Your task to perform on an android device: Play the last video I watched on Youtube Image 0: 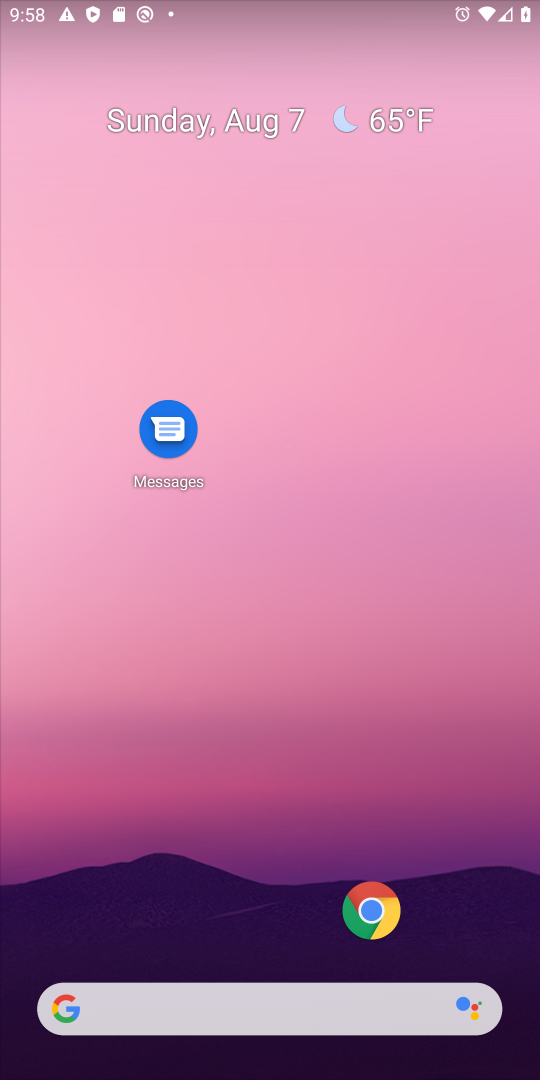
Step 0: drag from (219, 911) to (256, 499)
Your task to perform on an android device: Play the last video I watched on Youtube Image 1: 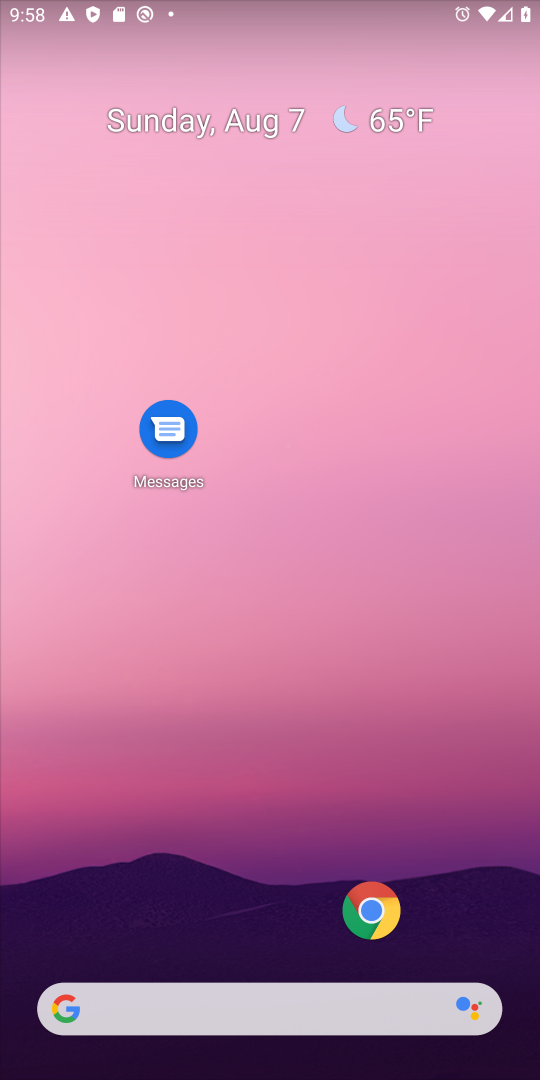
Step 1: drag from (296, 928) to (328, 472)
Your task to perform on an android device: Play the last video I watched on Youtube Image 2: 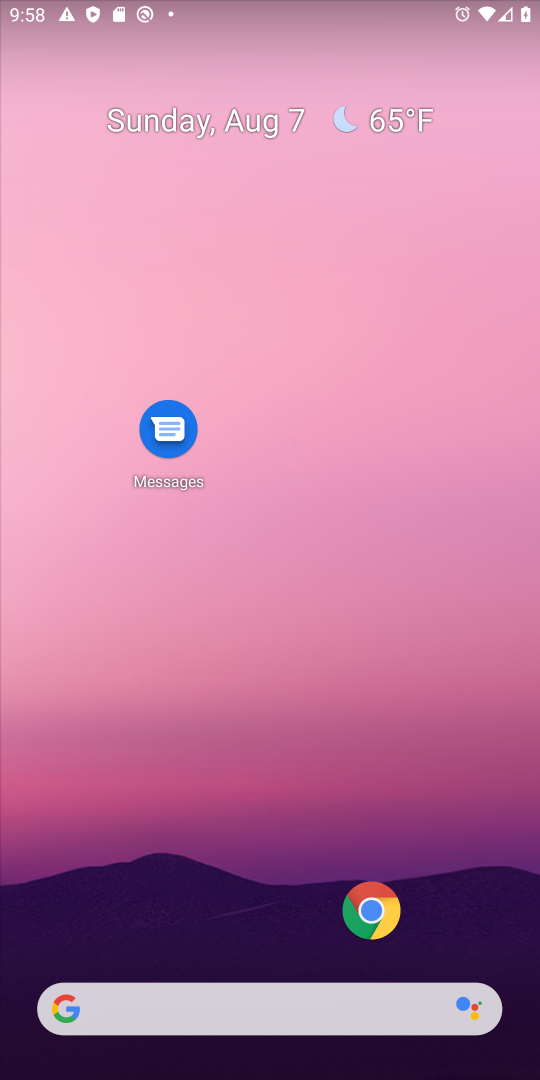
Step 2: drag from (229, 783) to (265, 458)
Your task to perform on an android device: Play the last video I watched on Youtube Image 3: 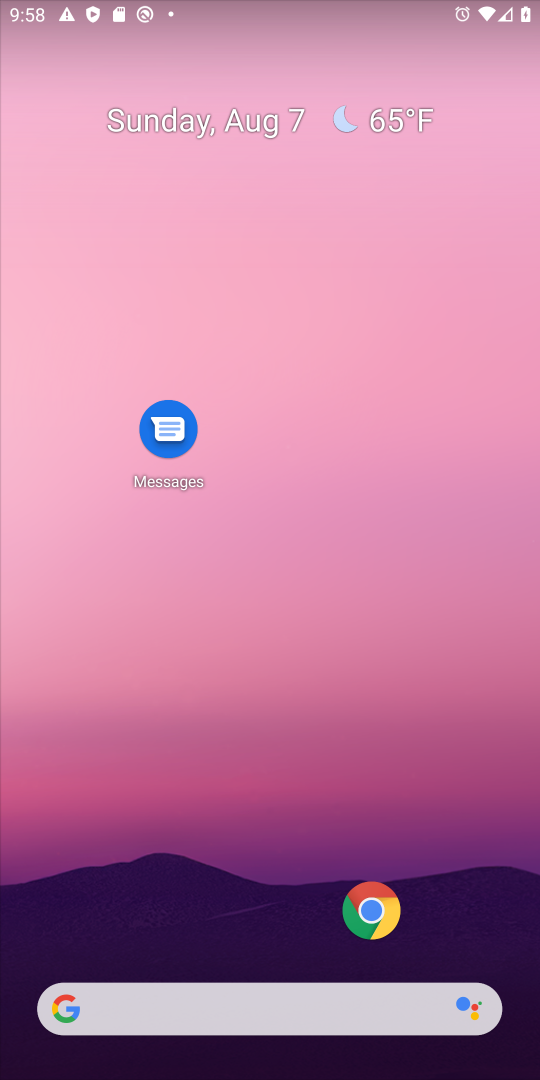
Step 3: drag from (215, 617) to (253, 298)
Your task to perform on an android device: Play the last video I watched on Youtube Image 4: 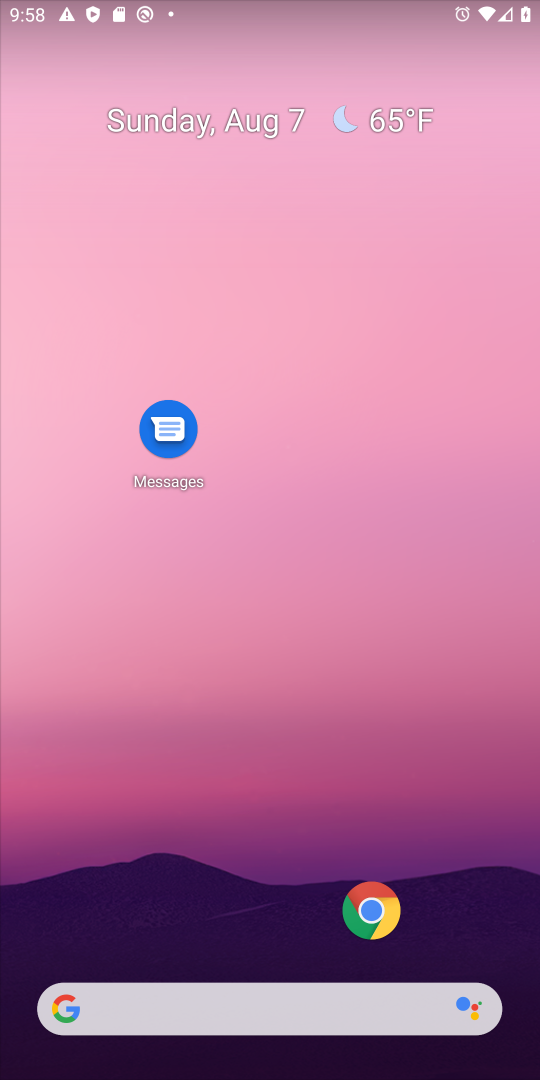
Step 4: drag from (324, 823) to (433, 72)
Your task to perform on an android device: Play the last video I watched on Youtube Image 5: 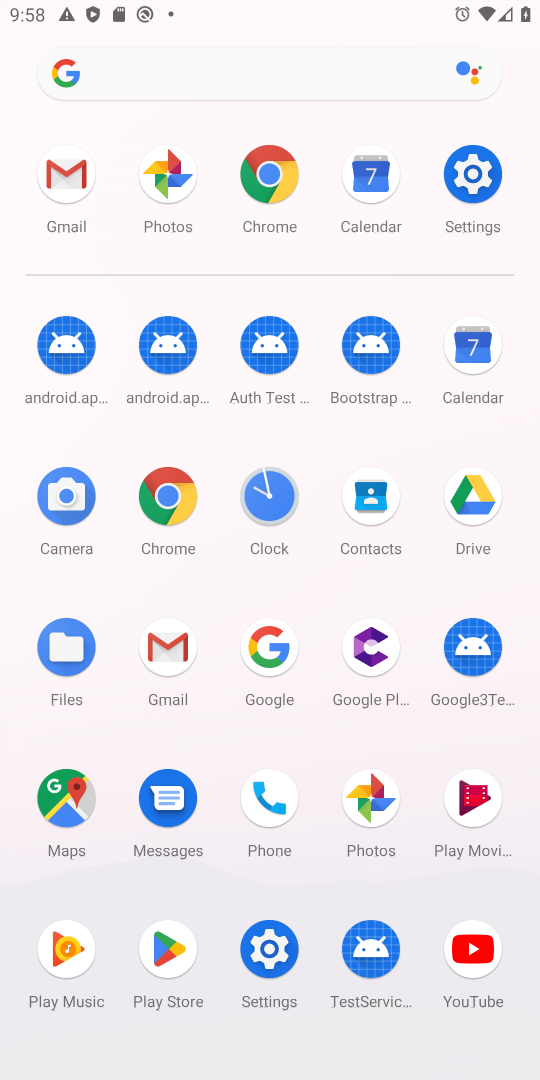
Step 5: click (476, 960)
Your task to perform on an android device: Play the last video I watched on Youtube Image 6: 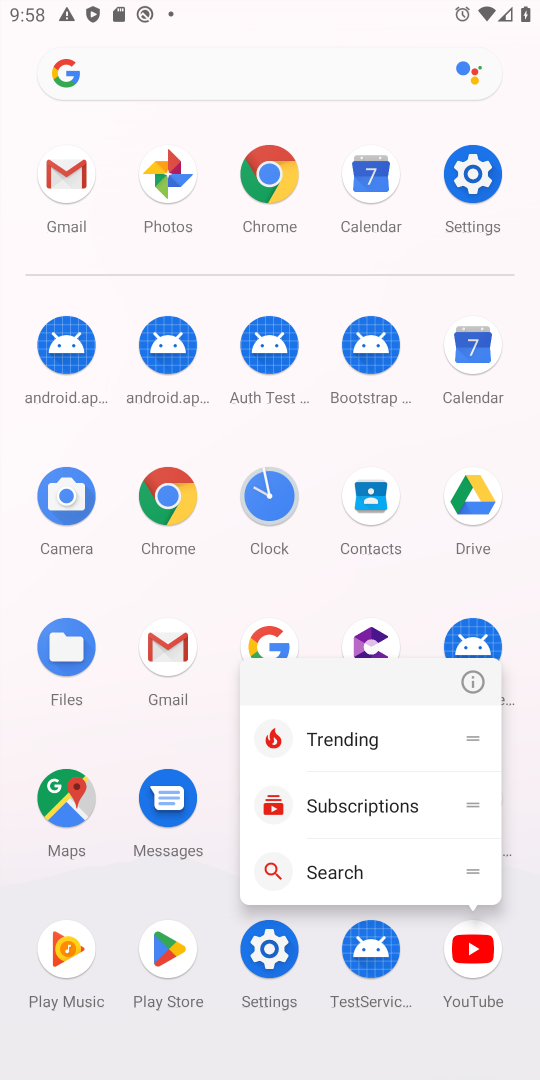
Step 6: click (476, 960)
Your task to perform on an android device: Play the last video I watched on Youtube Image 7: 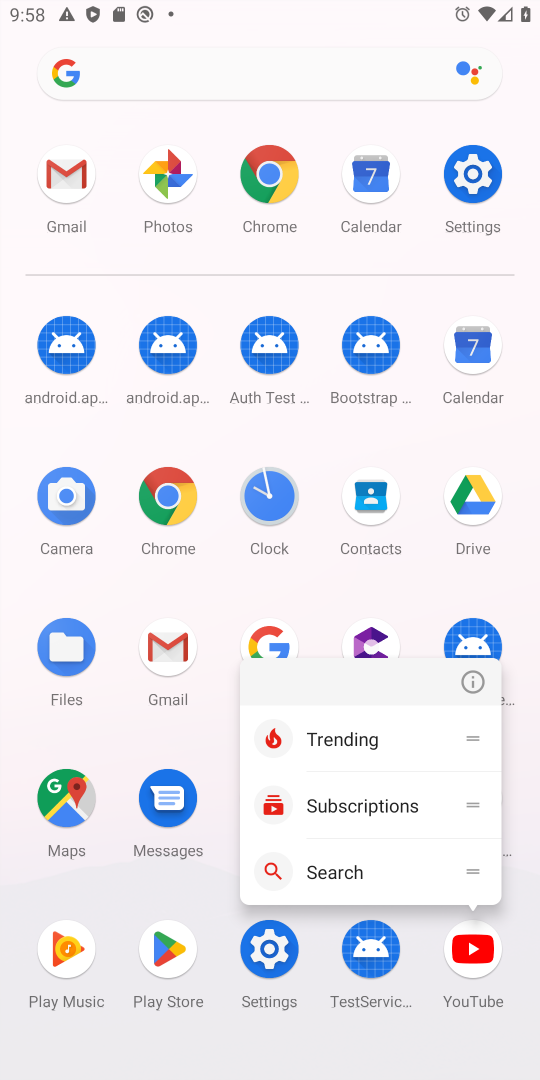
Step 7: click (470, 939)
Your task to perform on an android device: Play the last video I watched on Youtube Image 8: 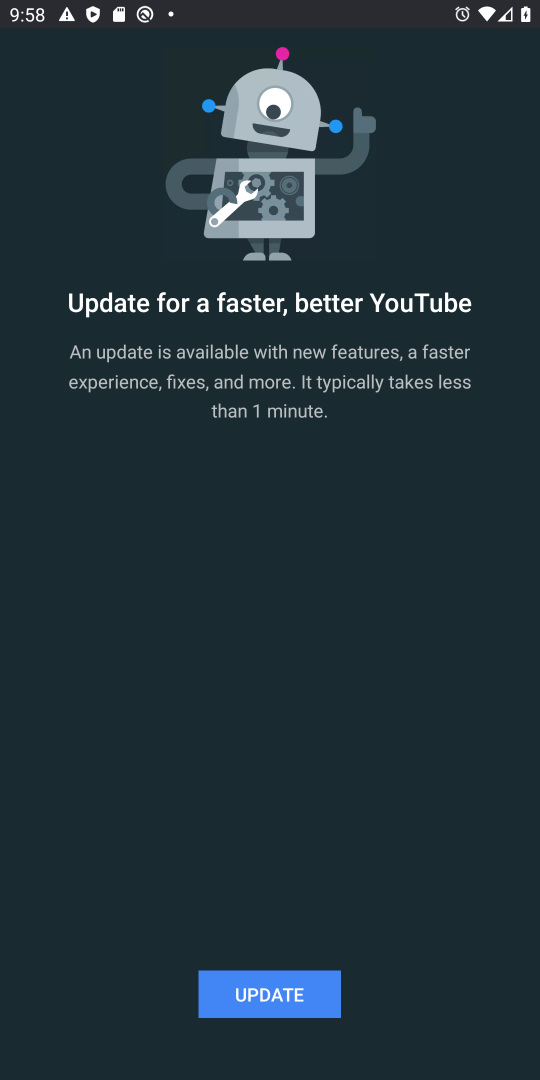
Step 8: click (295, 1003)
Your task to perform on an android device: Play the last video I watched on Youtube Image 9: 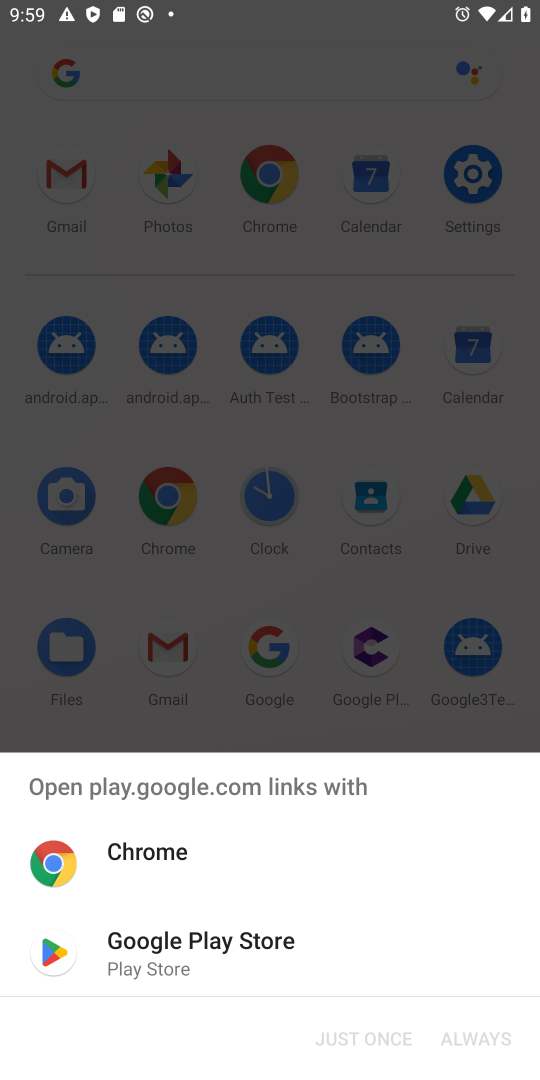
Step 9: click (324, 950)
Your task to perform on an android device: Play the last video I watched on Youtube Image 10: 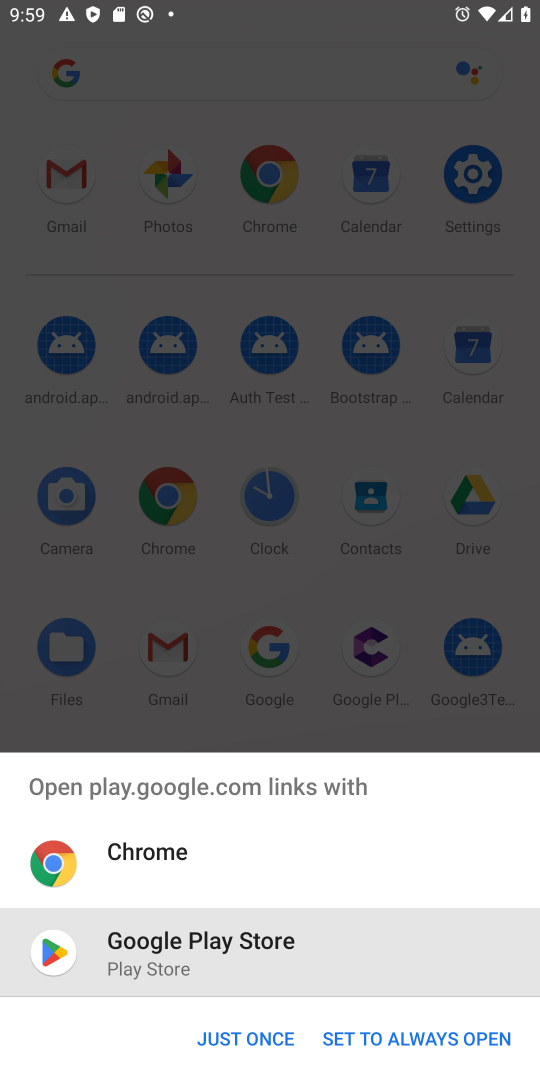
Step 10: click (239, 1049)
Your task to perform on an android device: Play the last video I watched on Youtube Image 11: 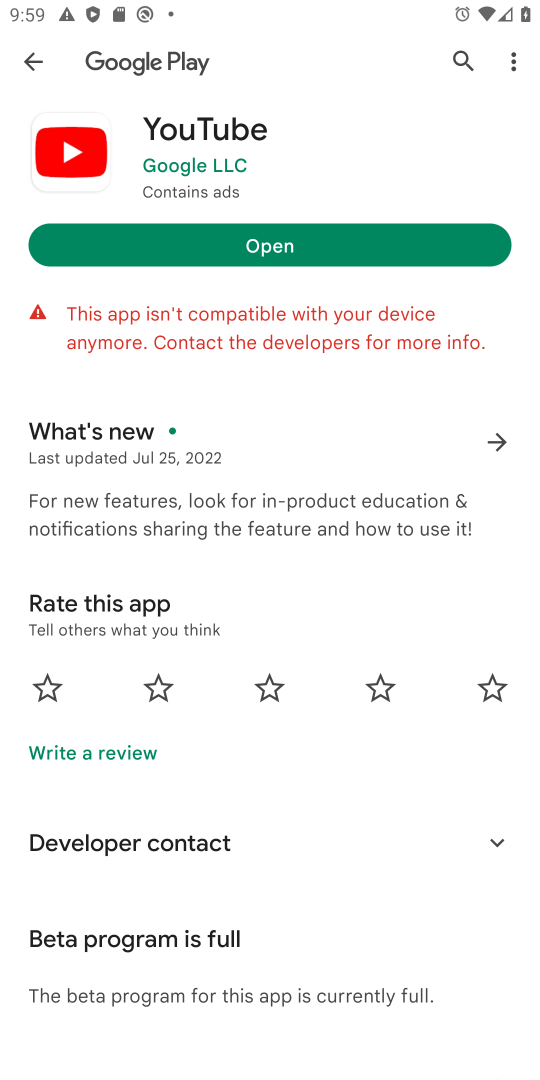
Step 11: click (243, 253)
Your task to perform on an android device: Play the last video I watched on Youtube Image 12: 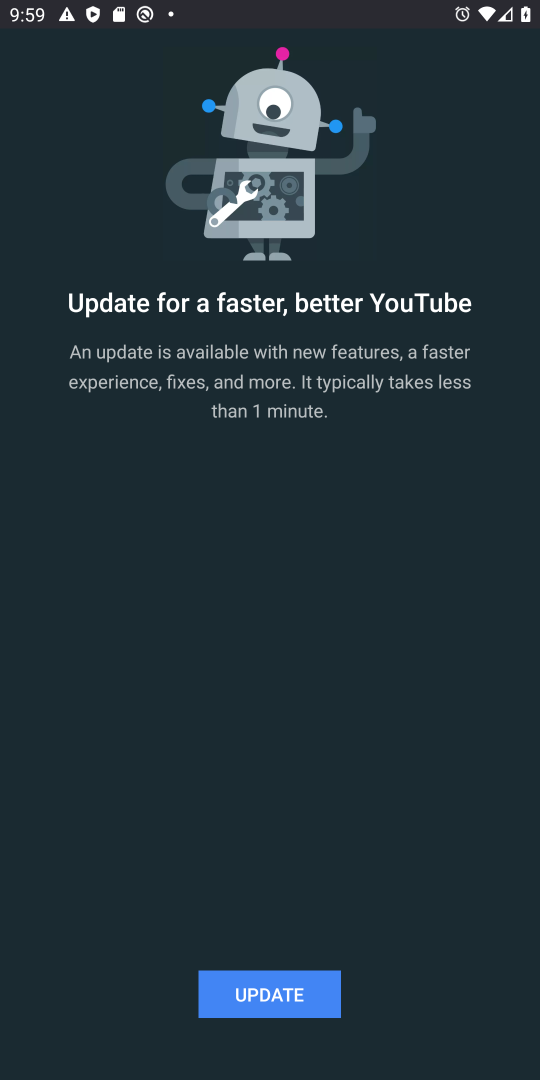
Step 12: task complete